Your task to perform on an android device: open wifi settings Image 0: 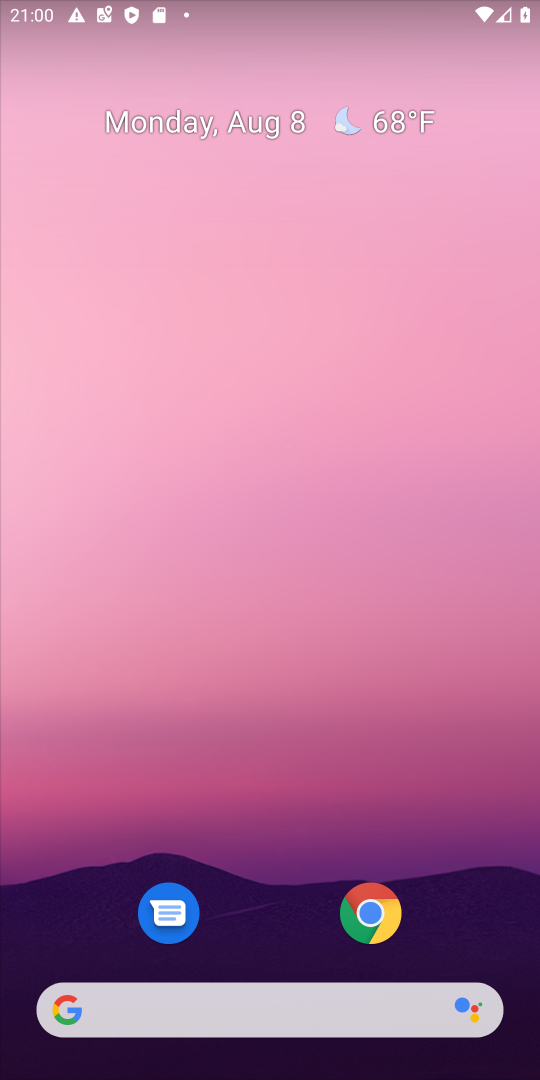
Step 0: drag from (233, 1023) to (328, 107)
Your task to perform on an android device: open wifi settings Image 1: 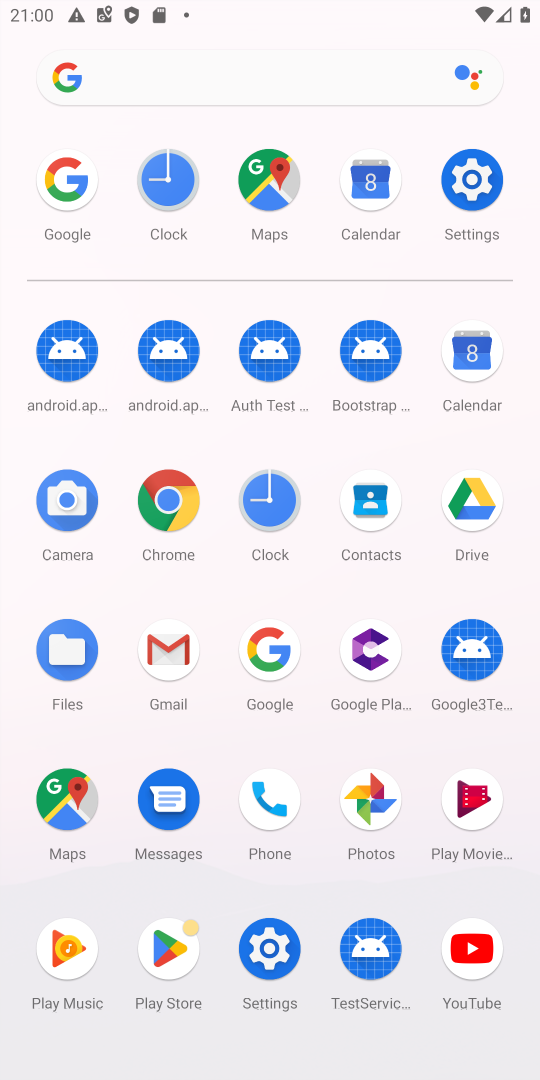
Step 1: click (471, 179)
Your task to perform on an android device: open wifi settings Image 2: 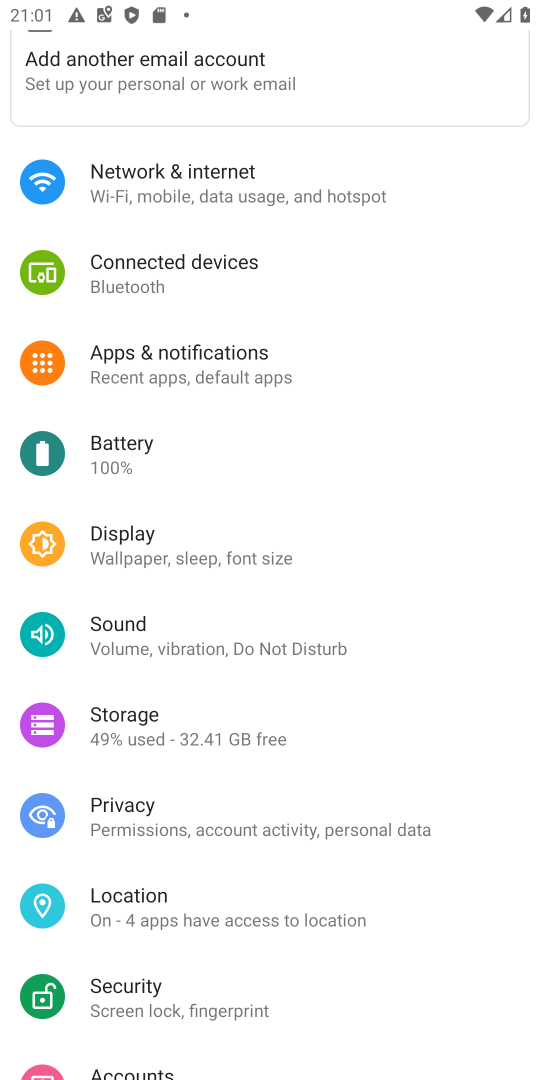
Step 2: click (215, 184)
Your task to perform on an android device: open wifi settings Image 3: 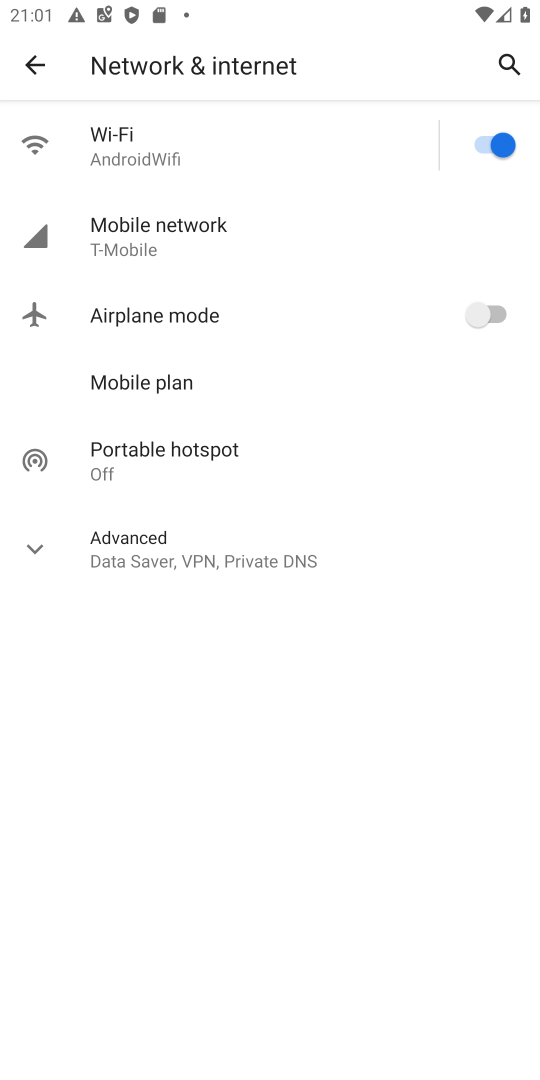
Step 3: click (146, 161)
Your task to perform on an android device: open wifi settings Image 4: 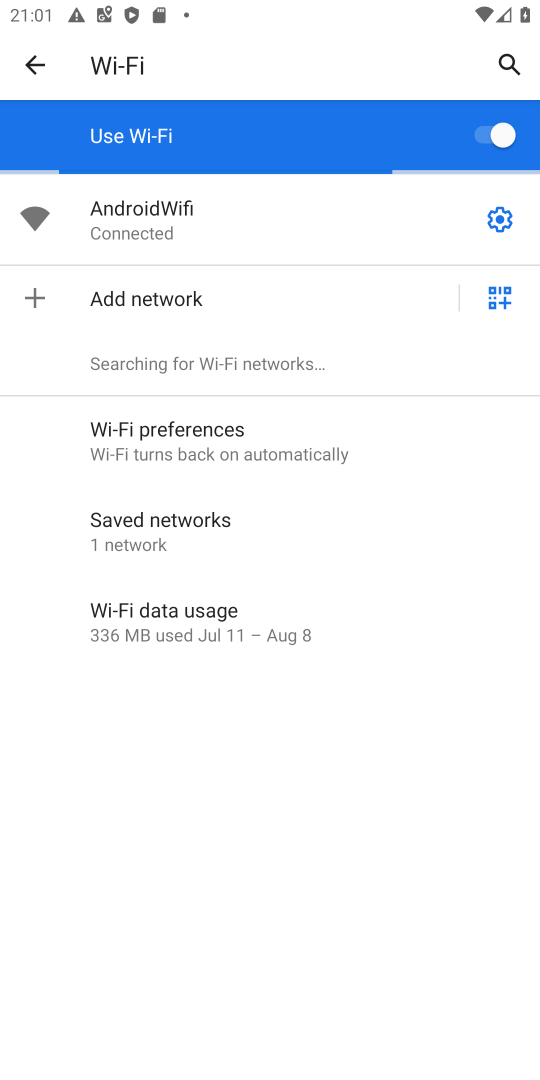
Step 4: click (500, 219)
Your task to perform on an android device: open wifi settings Image 5: 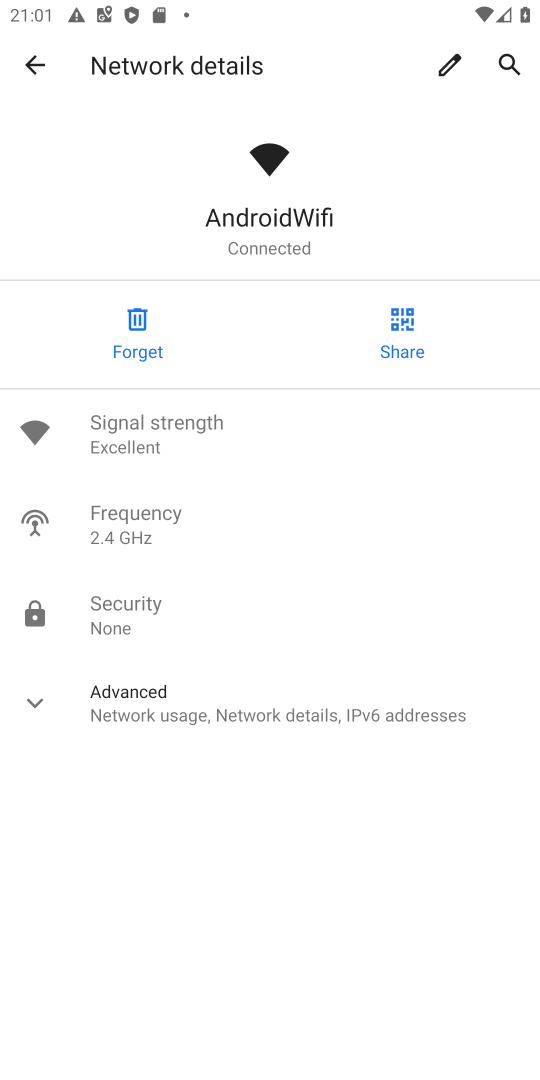
Step 5: task complete